Your task to perform on an android device: When is my next appointment? Image 0: 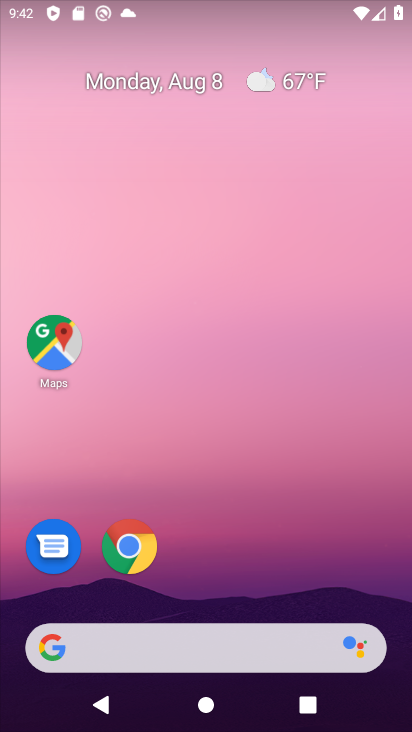
Step 0: drag from (243, 465) to (254, 142)
Your task to perform on an android device: When is my next appointment? Image 1: 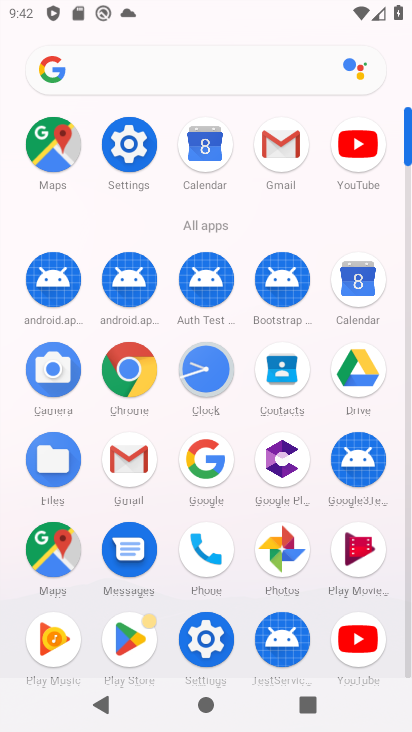
Step 1: click (363, 270)
Your task to perform on an android device: When is my next appointment? Image 2: 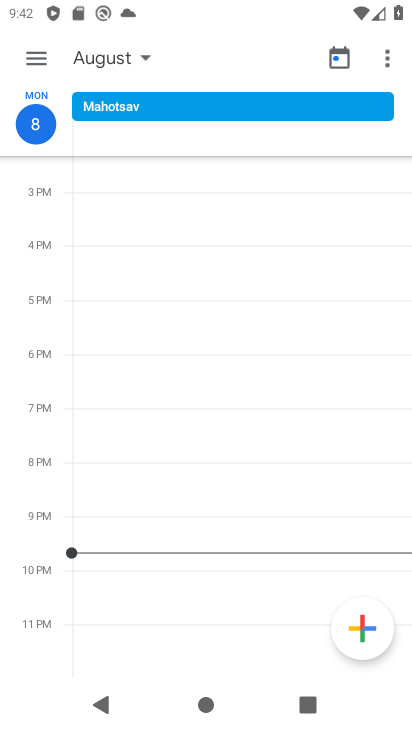
Step 2: task complete